Your task to perform on an android device: turn on sleep mode Image 0: 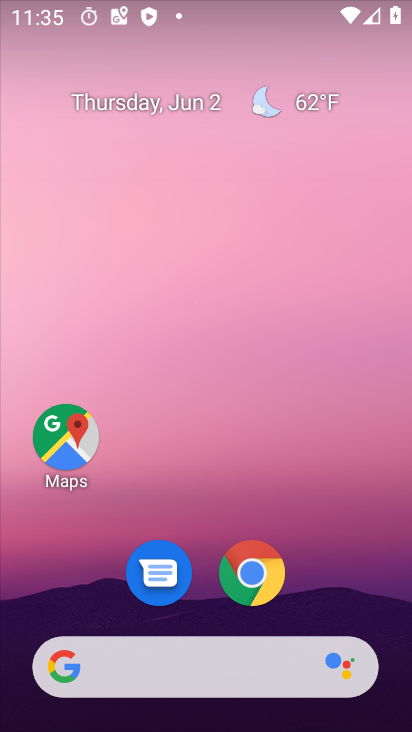
Step 0: drag from (213, 210) to (221, 95)
Your task to perform on an android device: turn on sleep mode Image 1: 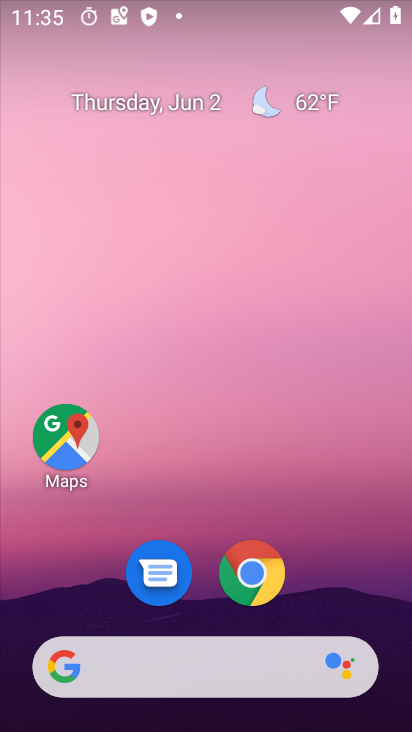
Step 1: drag from (256, 327) to (306, 57)
Your task to perform on an android device: turn on sleep mode Image 2: 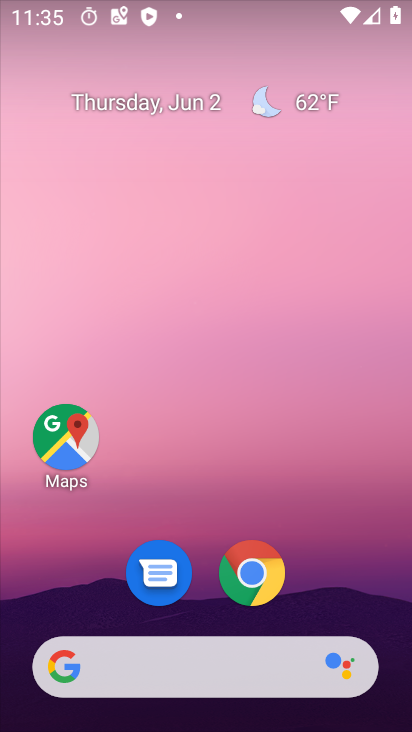
Step 2: drag from (307, 645) to (382, 79)
Your task to perform on an android device: turn on sleep mode Image 3: 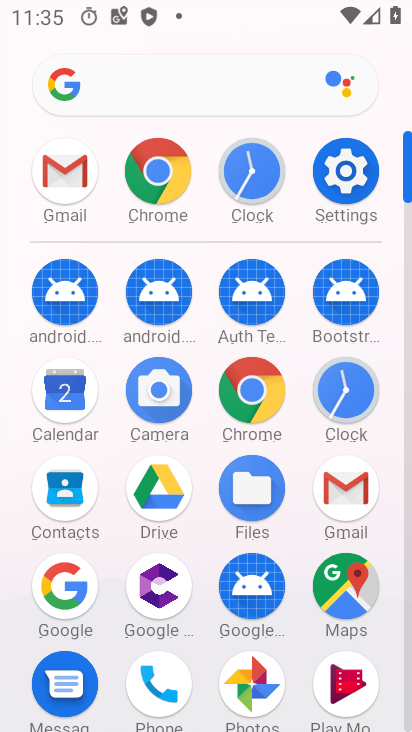
Step 3: click (365, 173)
Your task to perform on an android device: turn on sleep mode Image 4: 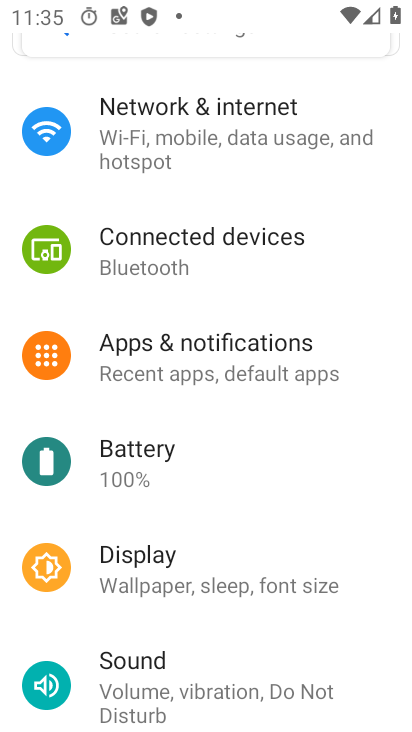
Step 4: click (223, 583)
Your task to perform on an android device: turn on sleep mode Image 5: 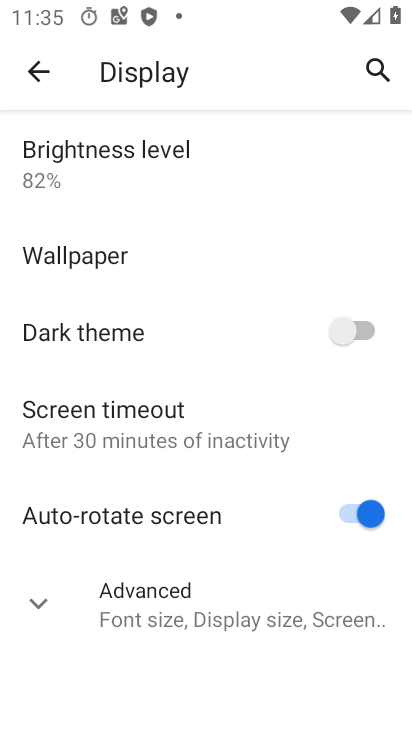
Step 5: task complete